Your task to perform on an android device: clear all cookies in the chrome app Image 0: 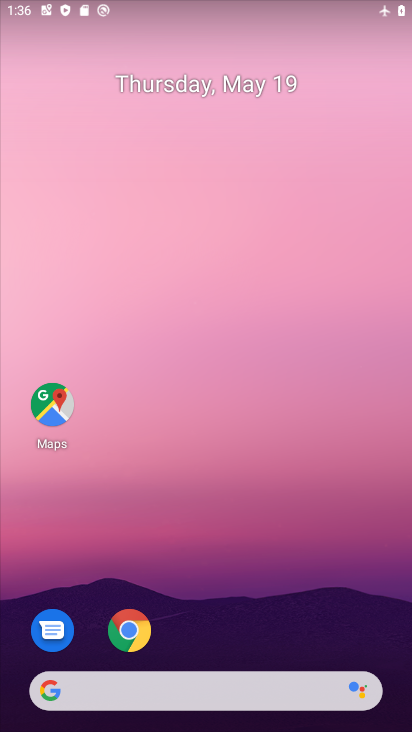
Step 0: click (146, 638)
Your task to perform on an android device: clear all cookies in the chrome app Image 1: 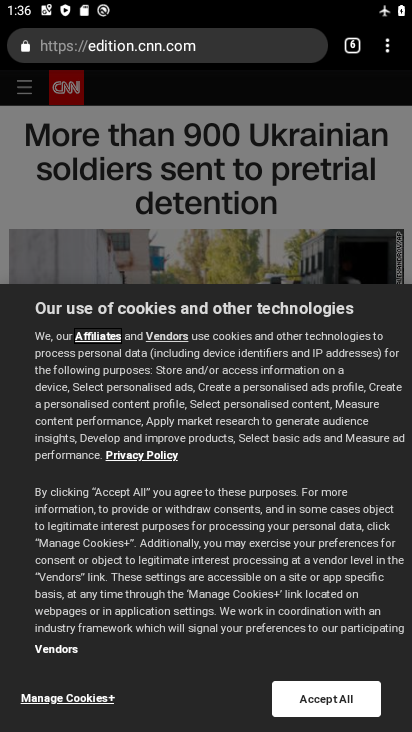
Step 1: click (382, 58)
Your task to perform on an android device: clear all cookies in the chrome app Image 2: 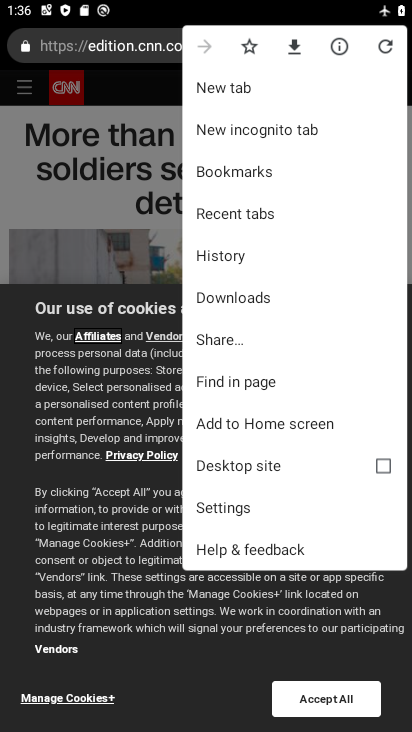
Step 2: click (205, 255)
Your task to perform on an android device: clear all cookies in the chrome app Image 3: 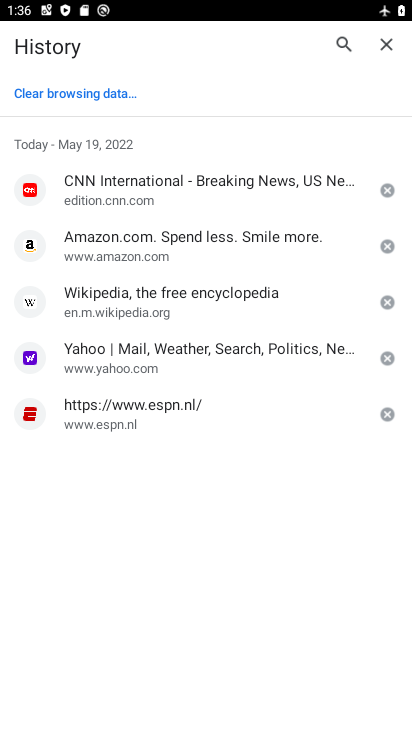
Step 3: click (57, 85)
Your task to perform on an android device: clear all cookies in the chrome app Image 4: 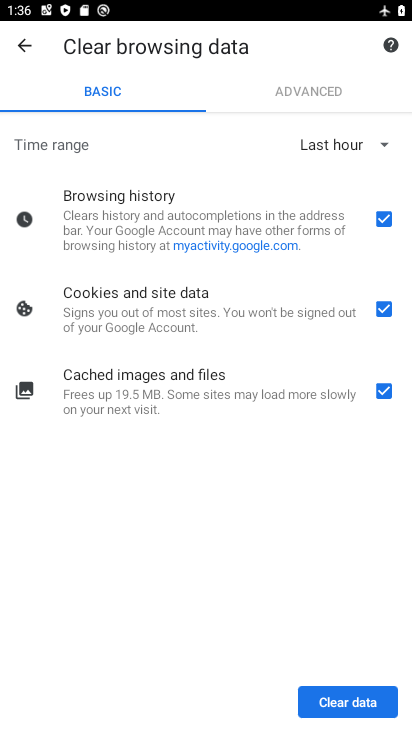
Step 4: click (359, 696)
Your task to perform on an android device: clear all cookies in the chrome app Image 5: 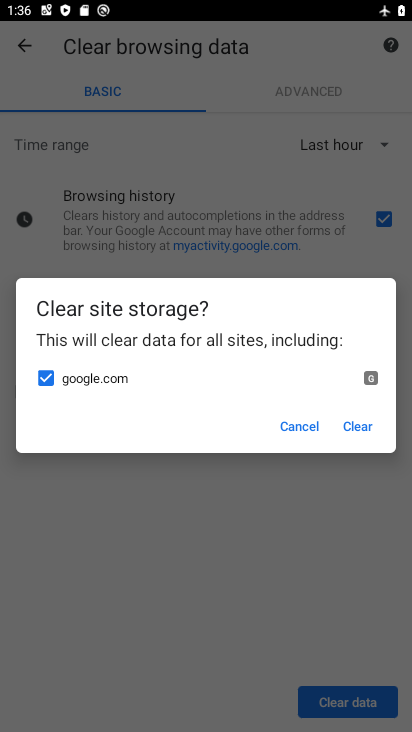
Step 5: click (348, 405)
Your task to perform on an android device: clear all cookies in the chrome app Image 6: 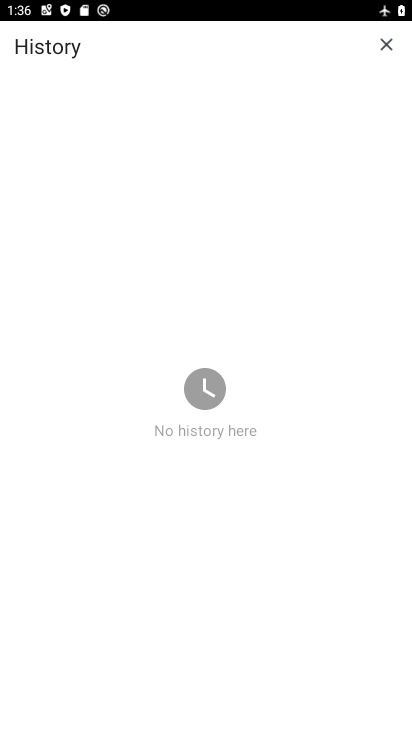
Step 6: task complete